Your task to perform on an android device: turn on notifications settings in the gmail app Image 0: 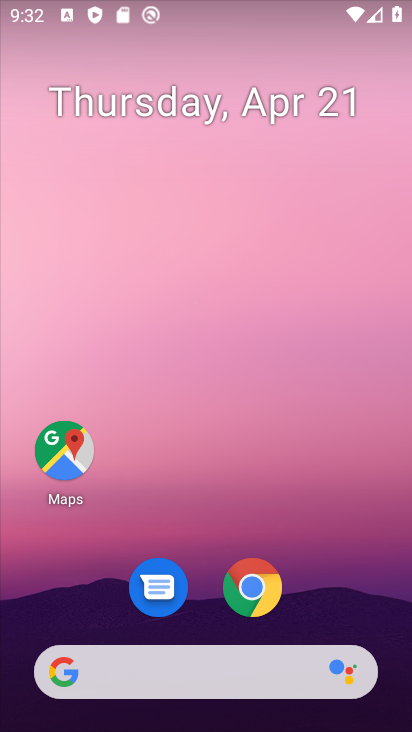
Step 0: drag from (186, 273) to (220, 206)
Your task to perform on an android device: turn on notifications settings in the gmail app Image 1: 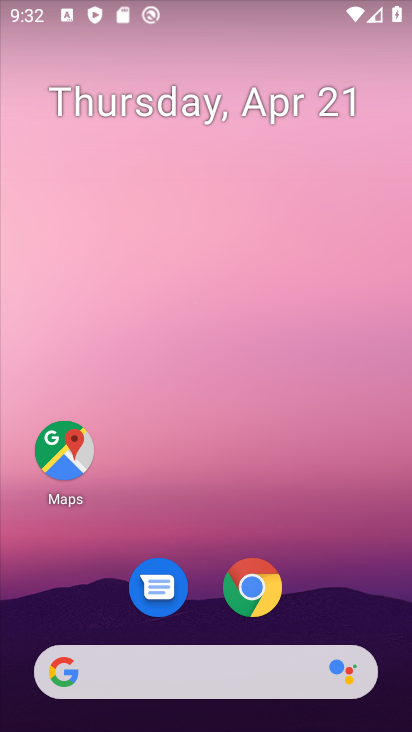
Step 1: drag from (77, 502) to (319, 166)
Your task to perform on an android device: turn on notifications settings in the gmail app Image 2: 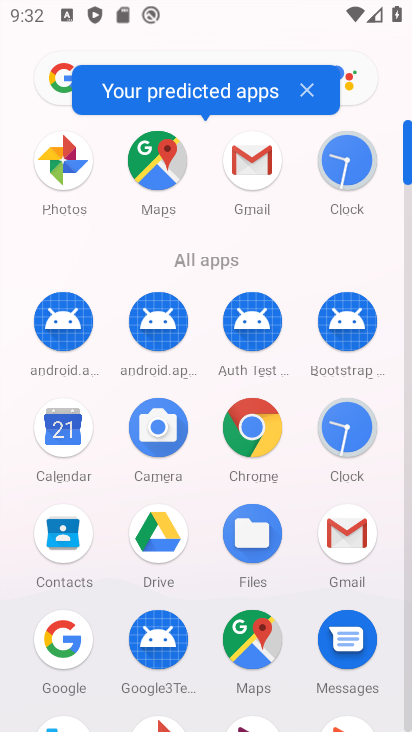
Step 2: click (247, 190)
Your task to perform on an android device: turn on notifications settings in the gmail app Image 3: 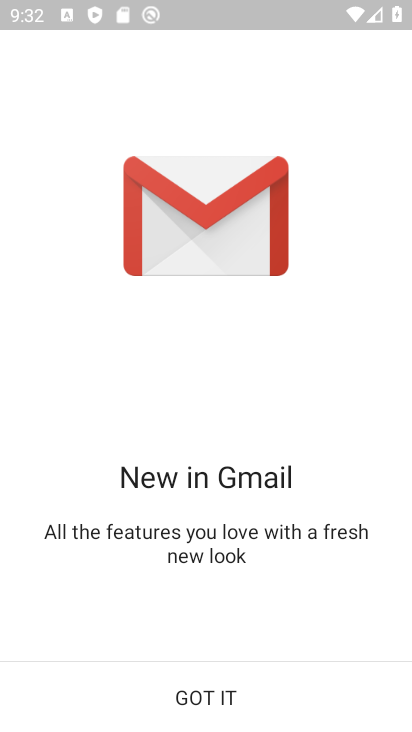
Step 3: click (187, 700)
Your task to perform on an android device: turn on notifications settings in the gmail app Image 4: 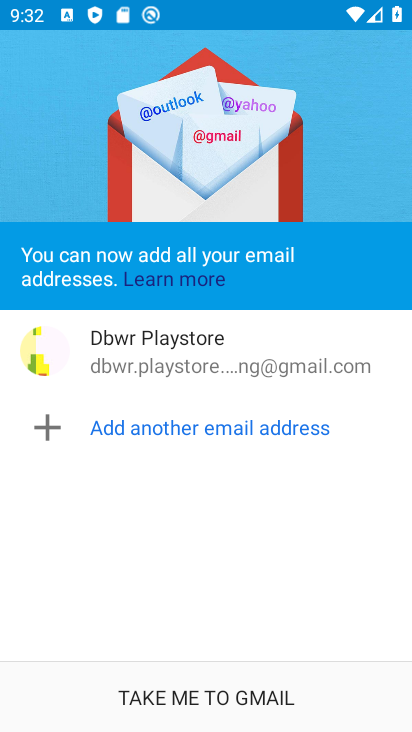
Step 4: click (155, 705)
Your task to perform on an android device: turn on notifications settings in the gmail app Image 5: 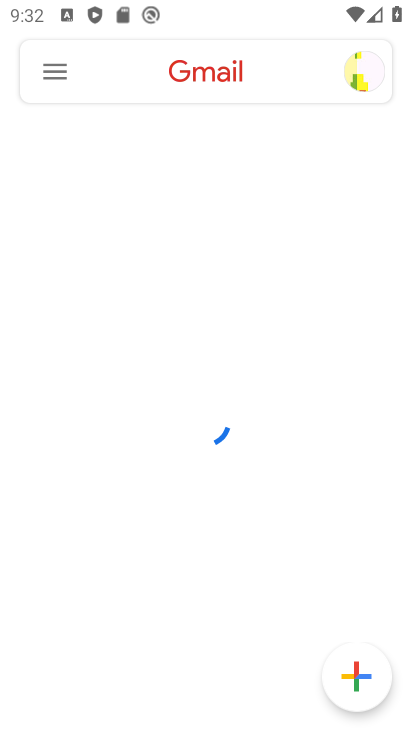
Step 5: click (44, 70)
Your task to perform on an android device: turn on notifications settings in the gmail app Image 6: 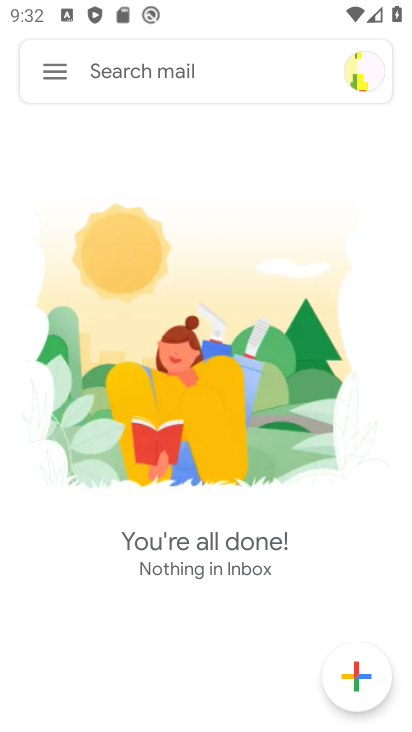
Step 6: click (51, 81)
Your task to perform on an android device: turn on notifications settings in the gmail app Image 7: 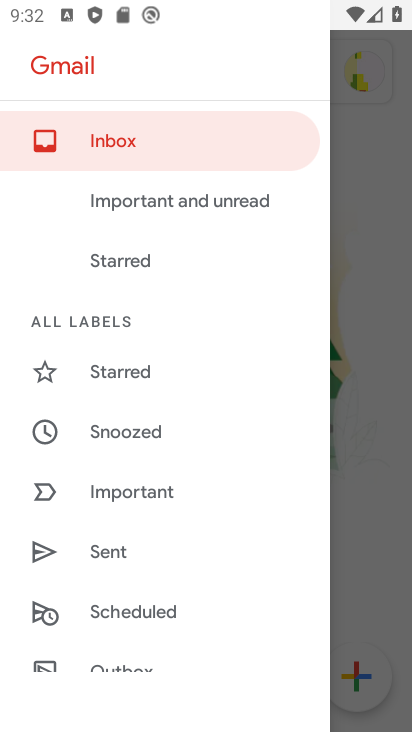
Step 7: drag from (137, 621) to (280, 230)
Your task to perform on an android device: turn on notifications settings in the gmail app Image 8: 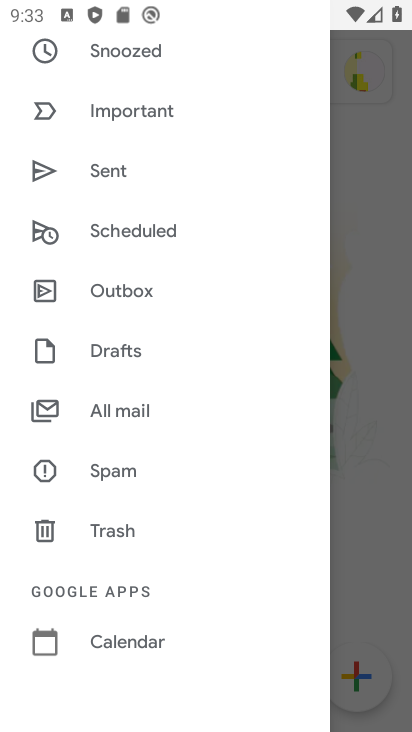
Step 8: drag from (125, 616) to (212, 283)
Your task to perform on an android device: turn on notifications settings in the gmail app Image 9: 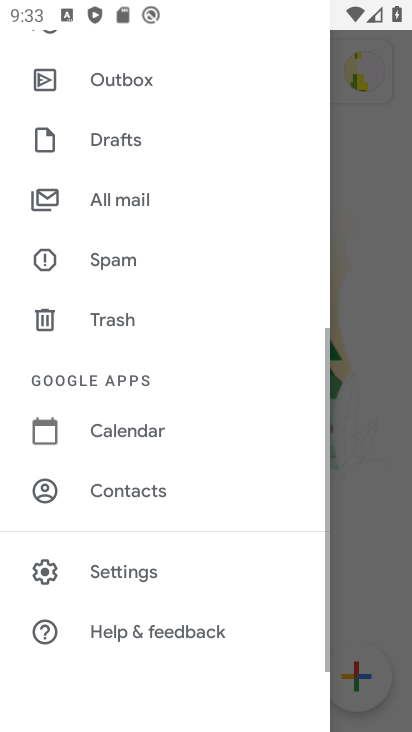
Step 9: click (113, 565)
Your task to perform on an android device: turn on notifications settings in the gmail app Image 10: 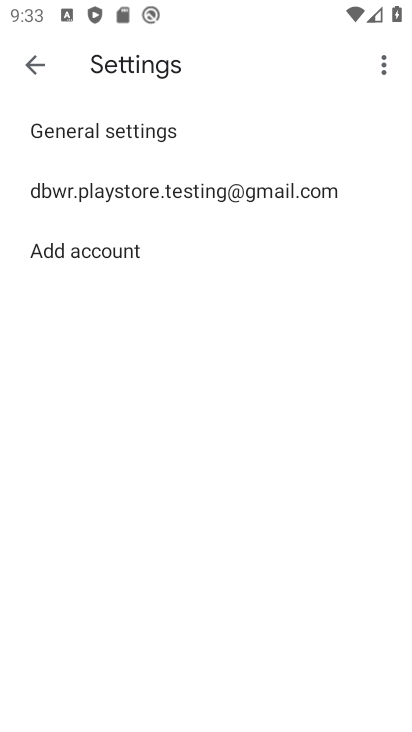
Step 10: click (142, 202)
Your task to perform on an android device: turn on notifications settings in the gmail app Image 11: 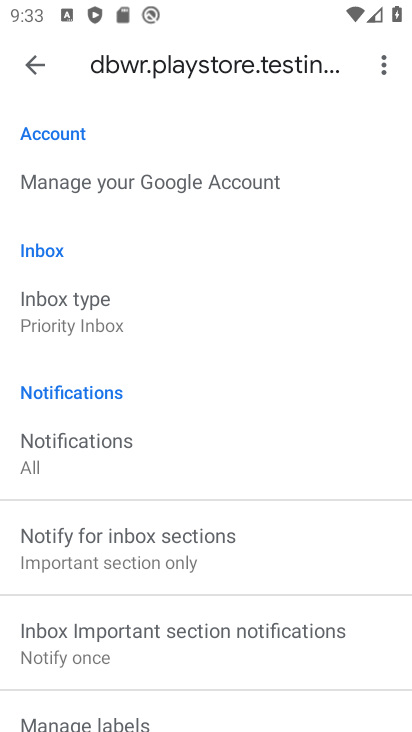
Step 11: drag from (172, 606) to (303, 238)
Your task to perform on an android device: turn on notifications settings in the gmail app Image 12: 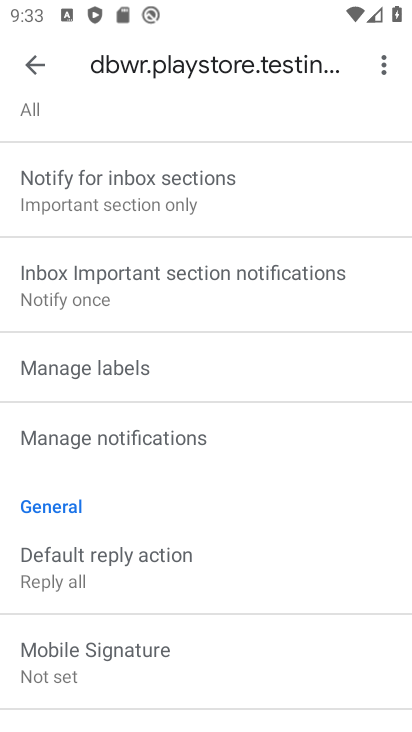
Step 12: drag from (70, 645) to (216, 312)
Your task to perform on an android device: turn on notifications settings in the gmail app Image 13: 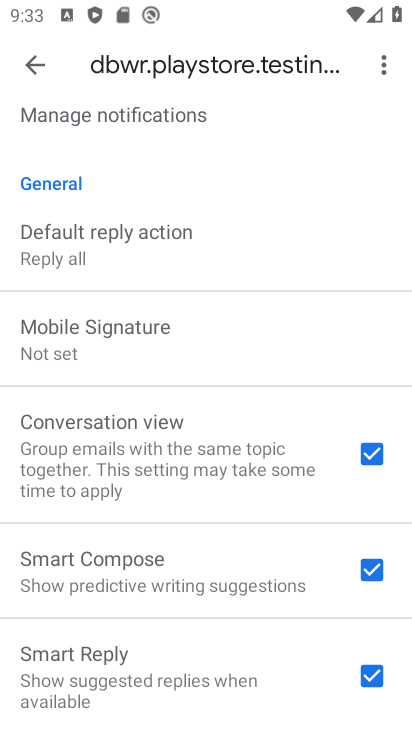
Step 13: drag from (172, 240) to (170, 456)
Your task to perform on an android device: turn on notifications settings in the gmail app Image 14: 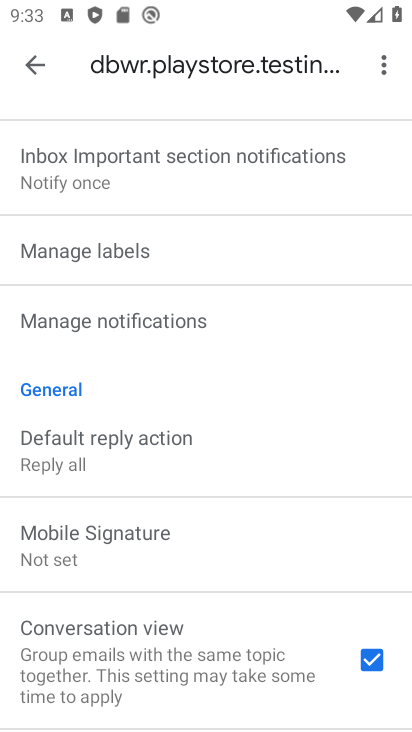
Step 14: click (171, 319)
Your task to perform on an android device: turn on notifications settings in the gmail app Image 15: 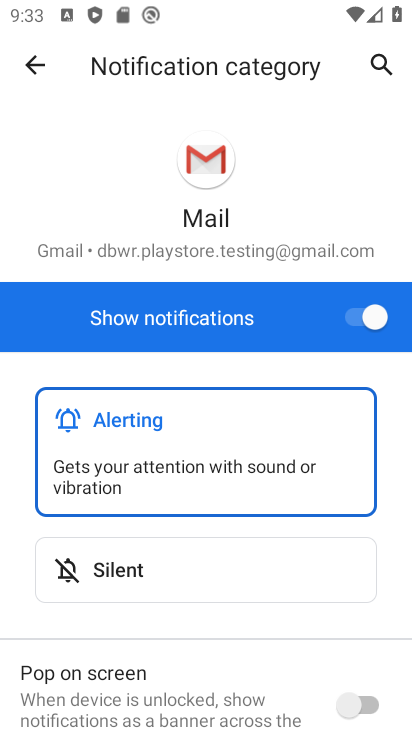
Step 15: task complete